Your task to perform on an android device: make emails show in primary in the gmail app Image 0: 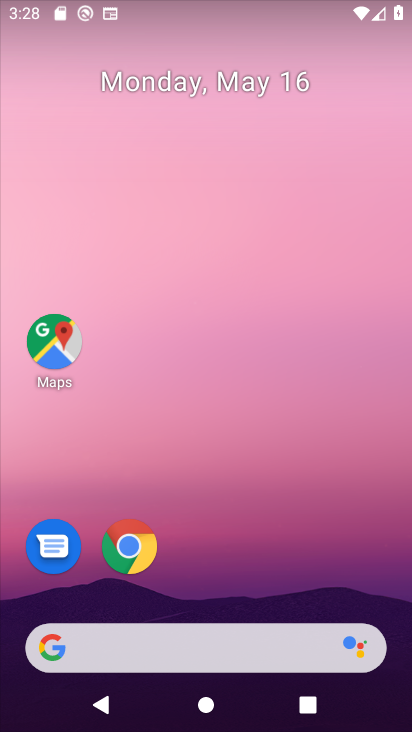
Step 0: press home button
Your task to perform on an android device: make emails show in primary in the gmail app Image 1: 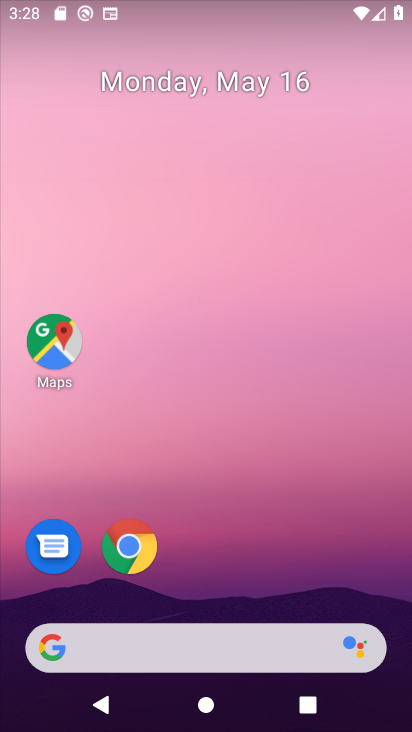
Step 1: drag from (371, 567) to (394, 142)
Your task to perform on an android device: make emails show in primary in the gmail app Image 2: 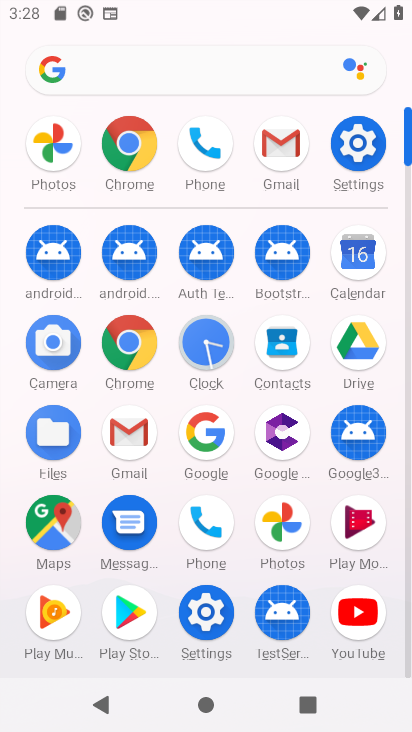
Step 2: click (127, 436)
Your task to perform on an android device: make emails show in primary in the gmail app Image 3: 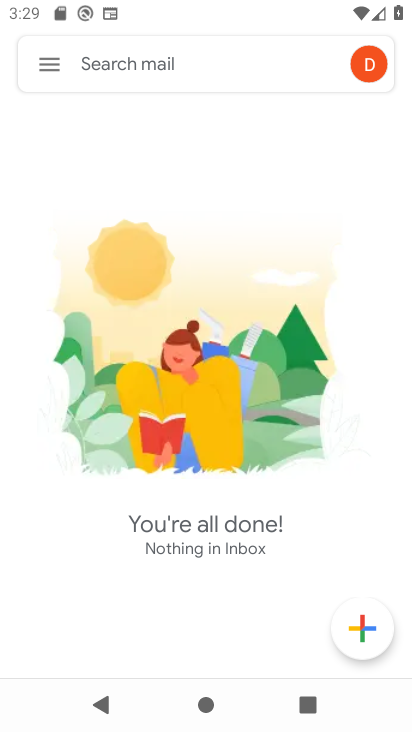
Step 3: click (54, 71)
Your task to perform on an android device: make emails show in primary in the gmail app Image 4: 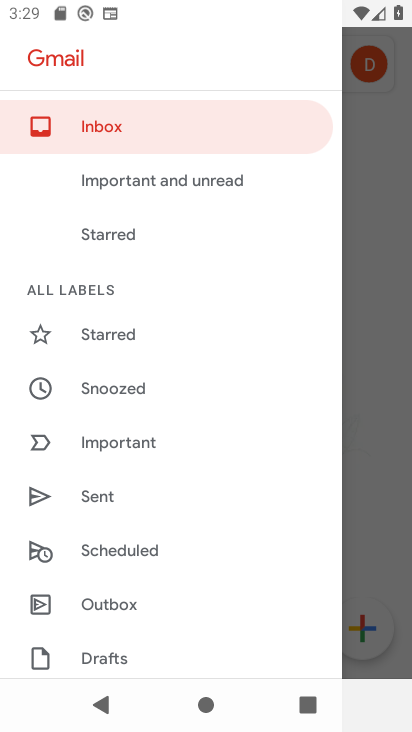
Step 4: drag from (296, 585) to (293, 395)
Your task to perform on an android device: make emails show in primary in the gmail app Image 5: 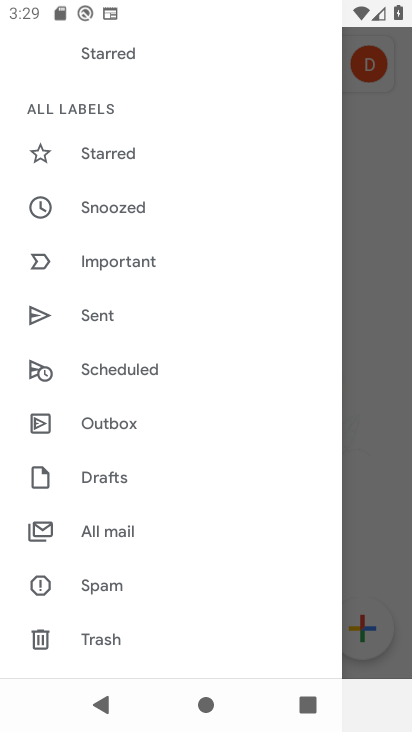
Step 5: drag from (262, 604) to (266, 428)
Your task to perform on an android device: make emails show in primary in the gmail app Image 6: 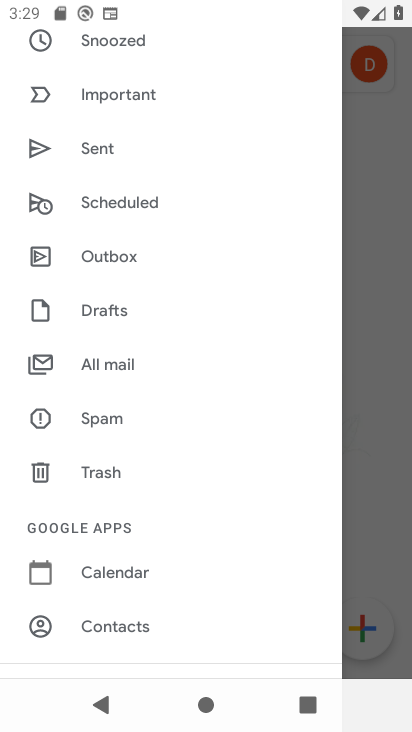
Step 6: drag from (243, 645) to (243, 438)
Your task to perform on an android device: make emails show in primary in the gmail app Image 7: 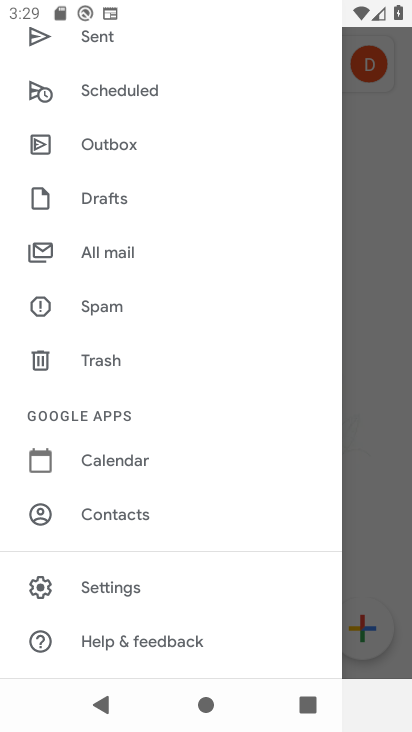
Step 7: click (146, 591)
Your task to perform on an android device: make emails show in primary in the gmail app Image 8: 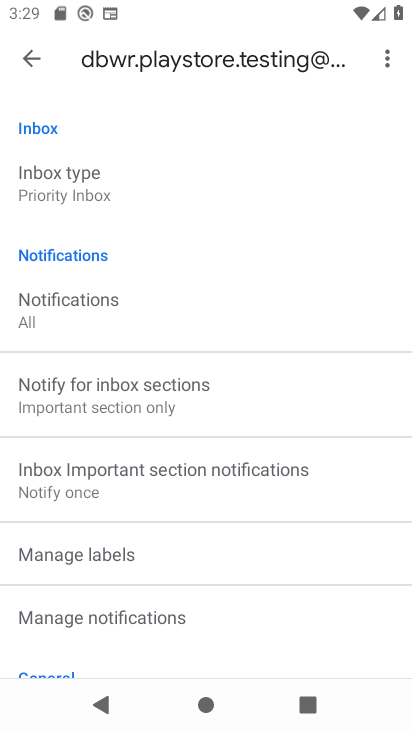
Step 8: click (74, 193)
Your task to perform on an android device: make emails show in primary in the gmail app Image 9: 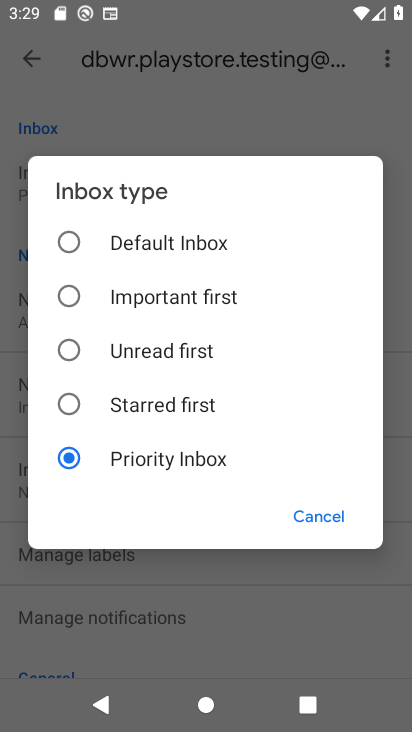
Step 9: click (190, 251)
Your task to perform on an android device: make emails show in primary in the gmail app Image 10: 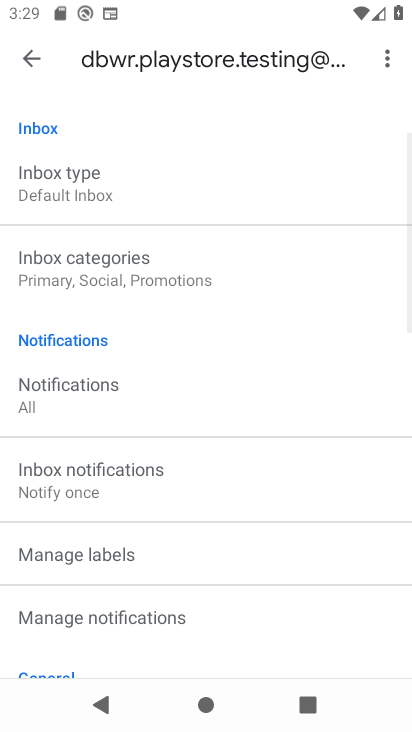
Step 10: drag from (314, 602) to (318, 391)
Your task to perform on an android device: make emails show in primary in the gmail app Image 11: 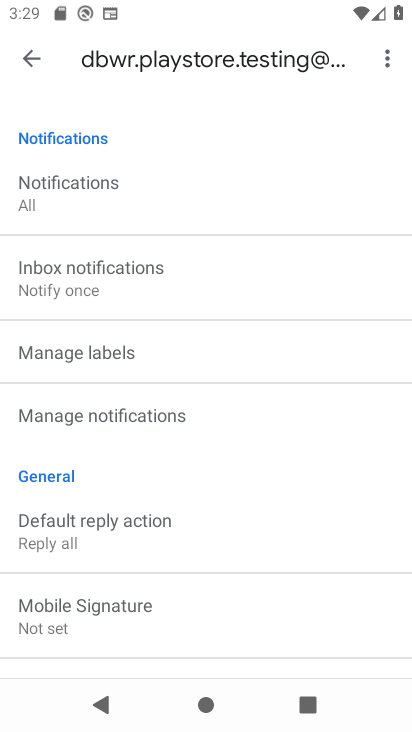
Step 11: drag from (327, 608) to (348, 461)
Your task to perform on an android device: make emails show in primary in the gmail app Image 12: 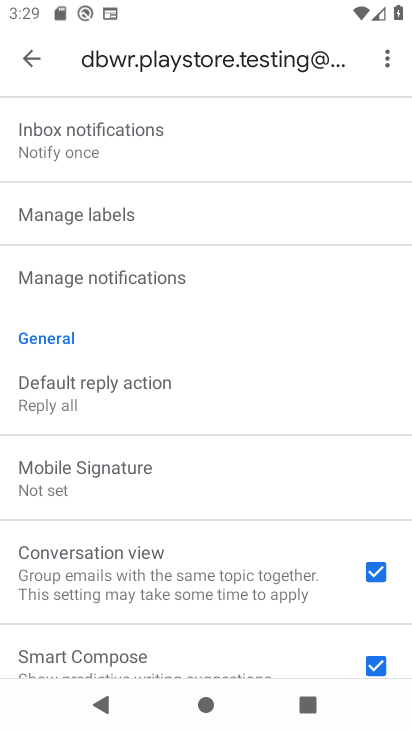
Step 12: drag from (319, 627) to (317, 268)
Your task to perform on an android device: make emails show in primary in the gmail app Image 13: 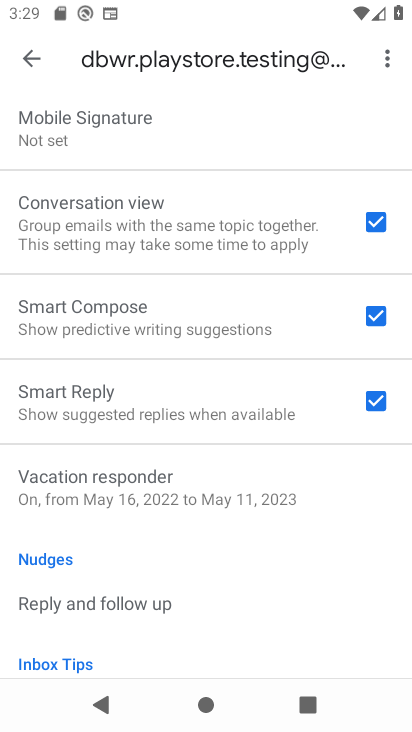
Step 13: drag from (289, 535) to (309, 350)
Your task to perform on an android device: make emails show in primary in the gmail app Image 14: 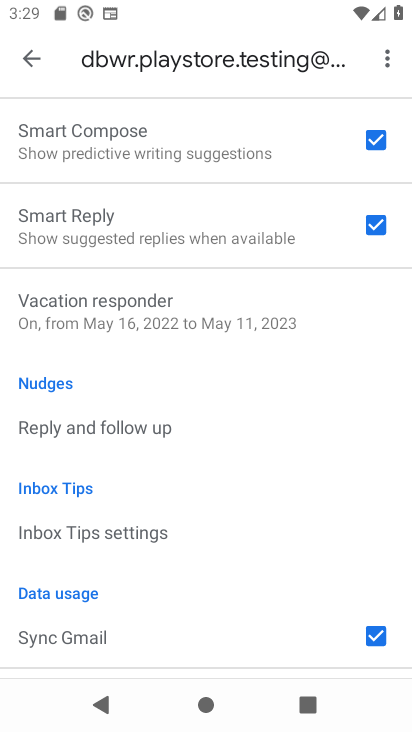
Step 14: drag from (298, 560) to (310, 427)
Your task to perform on an android device: make emails show in primary in the gmail app Image 15: 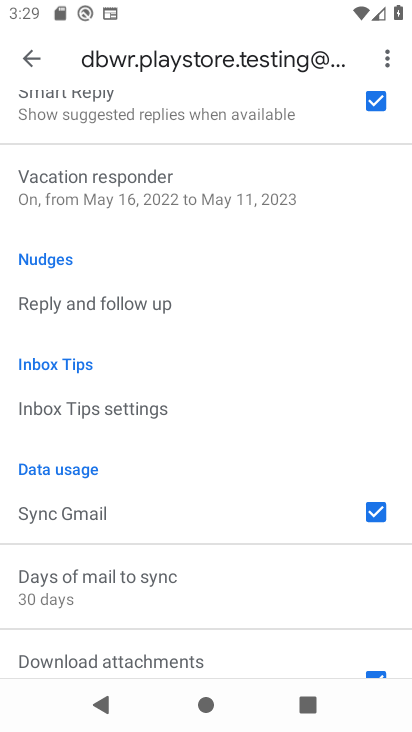
Step 15: drag from (292, 583) to (297, 490)
Your task to perform on an android device: make emails show in primary in the gmail app Image 16: 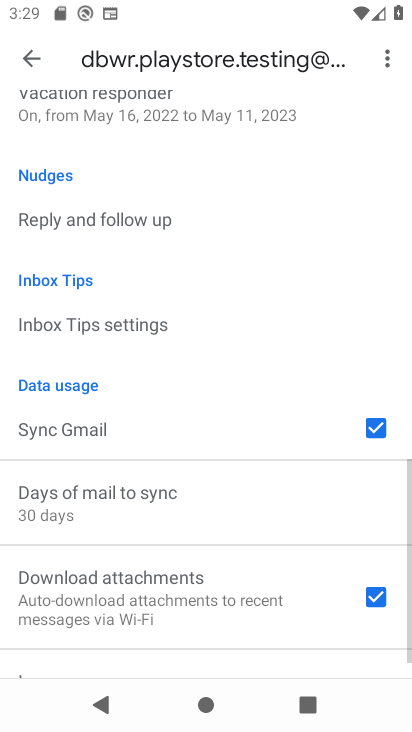
Step 16: drag from (285, 291) to (284, 459)
Your task to perform on an android device: make emails show in primary in the gmail app Image 17: 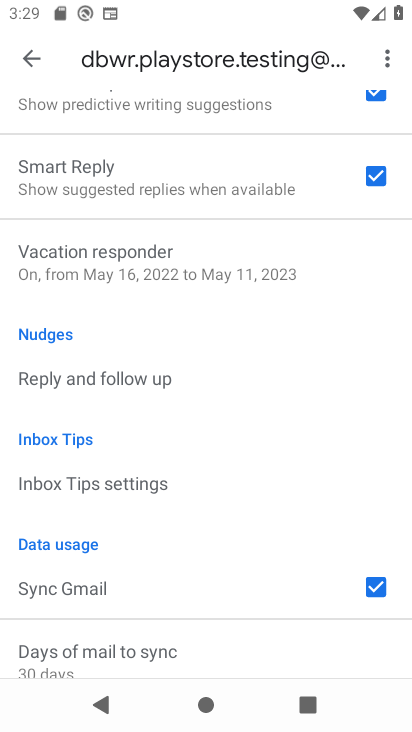
Step 17: drag from (286, 338) to (289, 436)
Your task to perform on an android device: make emails show in primary in the gmail app Image 18: 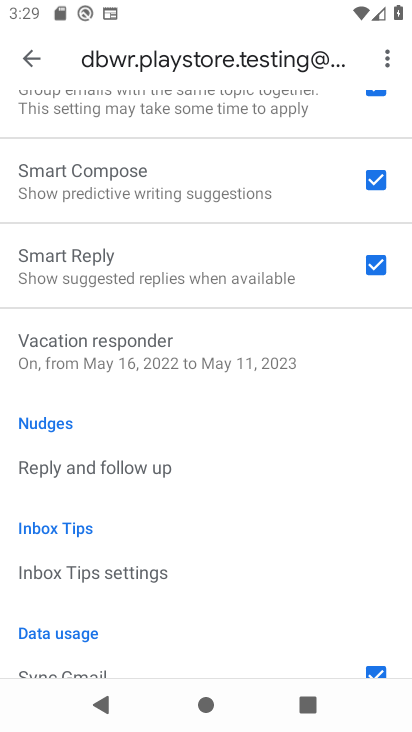
Step 18: drag from (314, 292) to (311, 436)
Your task to perform on an android device: make emails show in primary in the gmail app Image 19: 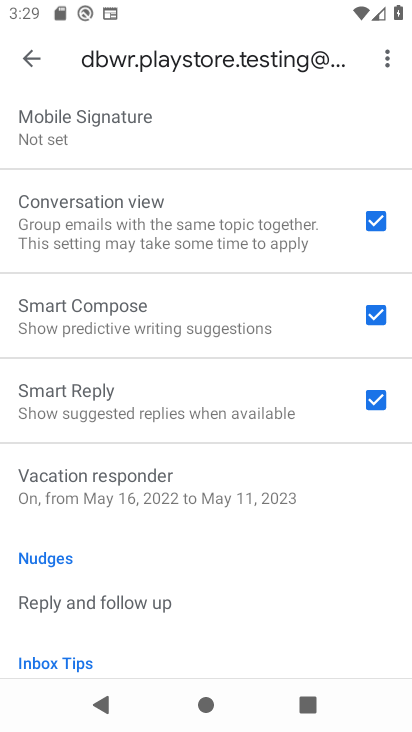
Step 19: drag from (313, 264) to (318, 406)
Your task to perform on an android device: make emails show in primary in the gmail app Image 20: 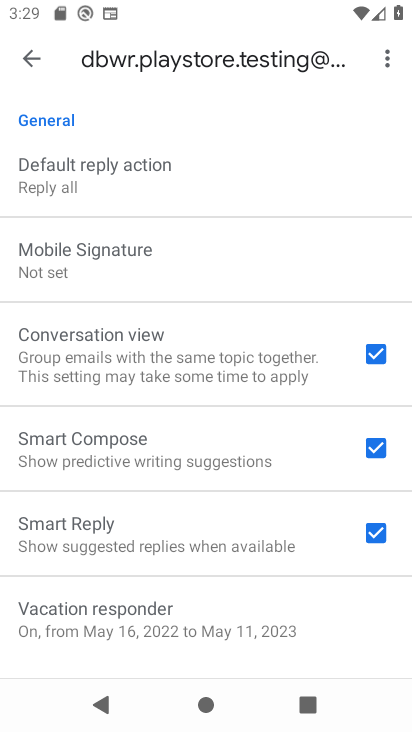
Step 20: drag from (300, 216) to (283, 404)
Your task to perform on an android device: make emails show in primary in the gmail app Image 21: 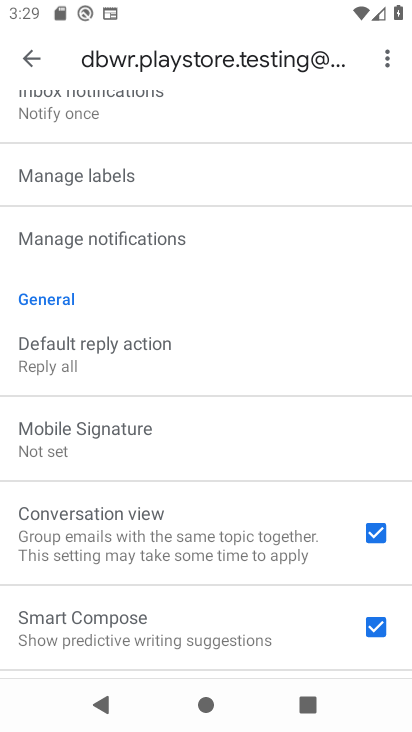
Step 21: drag from (270, 178) to (270, 363)
Your task to perform on an android device: make emails show in primary in the gmail app Image 22: 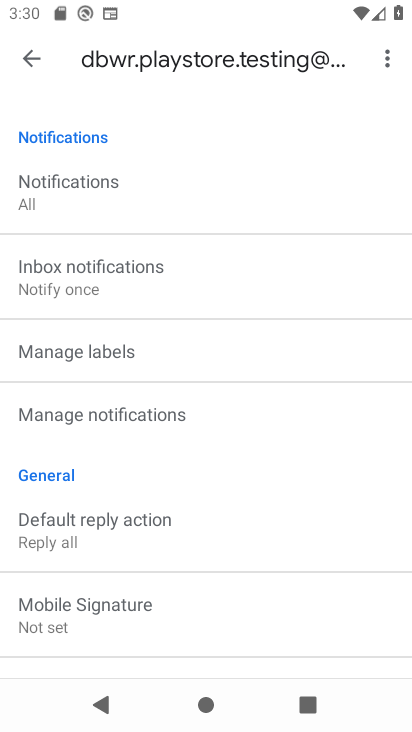
Step 22: drag from (262, 173) to (254, 346)
Your task to perform on an android device: make emails show in primary in the gmail app Image 23: 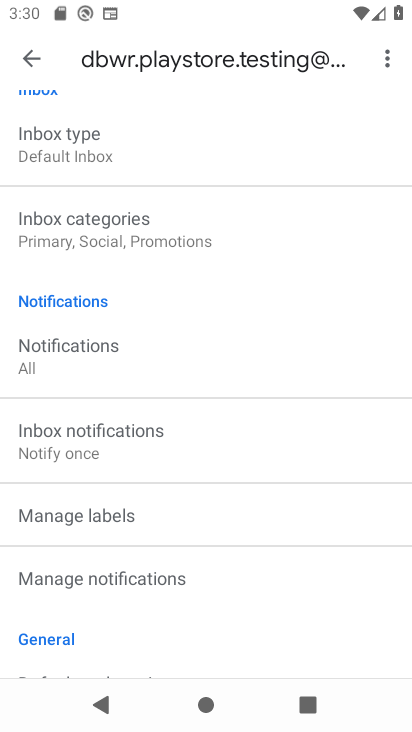
Step 23: click (130, 220)
Your task to perform on an android device: make emails show in primary in the gmail app Image 24: 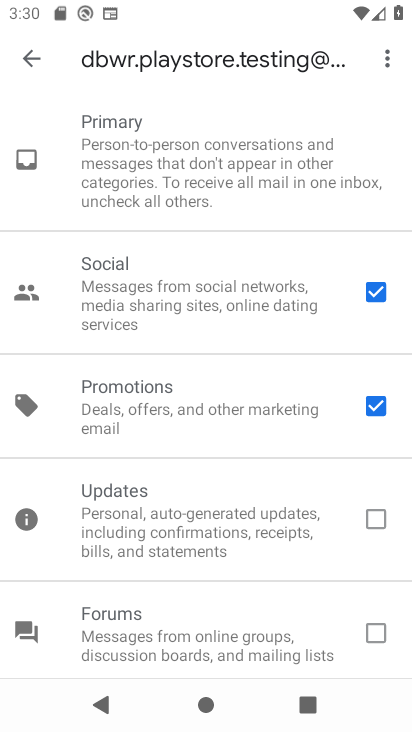
Step 24: click (372, 409)
Your task to perform on an android device: make emails show in primary in the gmail app Image 25: 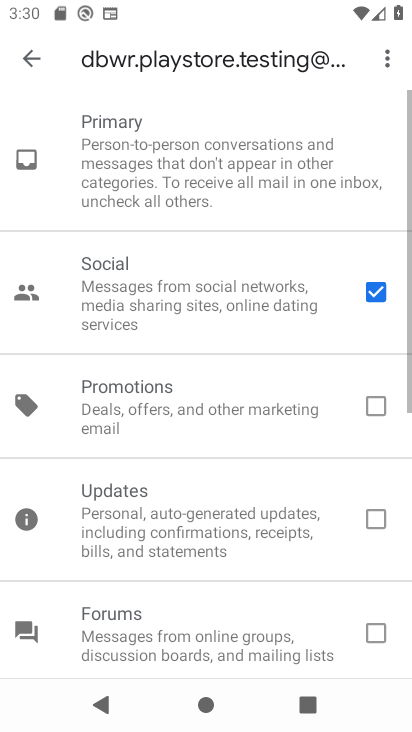
Step 25: click (380, 293)
Your task to perform on an android device: make emails show in primary in the gmail app Image 26: 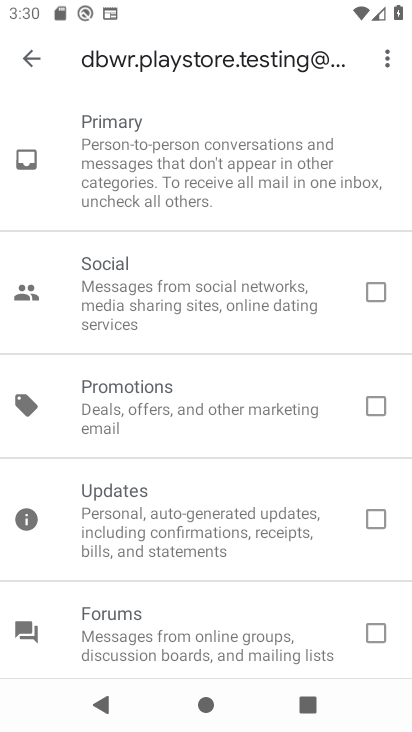
Step 26: task complete